Your task to perform on an android device: Go to display settings Image 0: 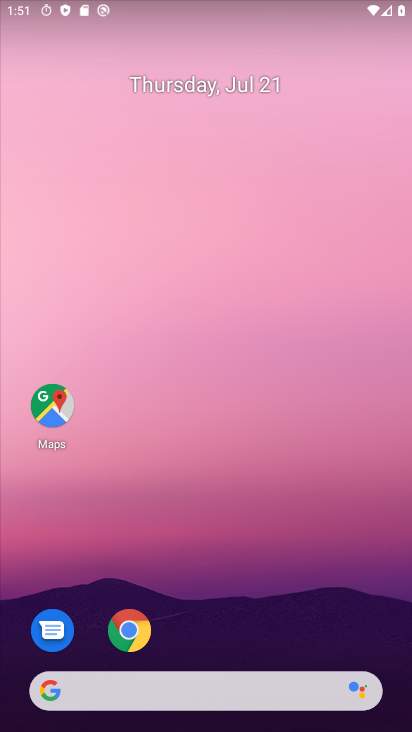
Step 0: drag from (219, 620) to (240, 107)
Your task to perform on an android device: Go to display settings Image 1: 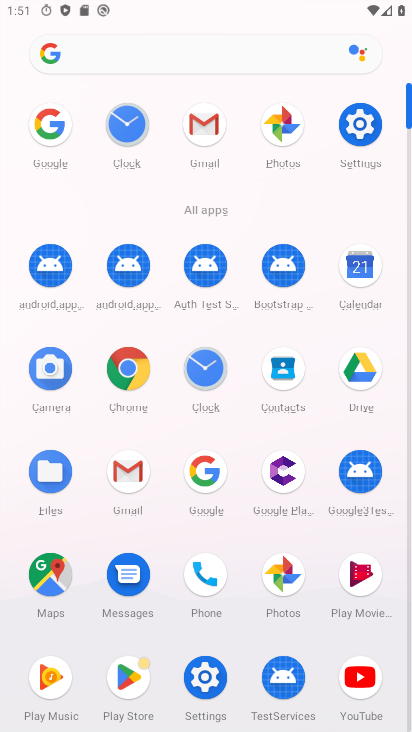
Step 1: click (354, 131)
Your task to perform on an android device: Go to display settings Image 2: 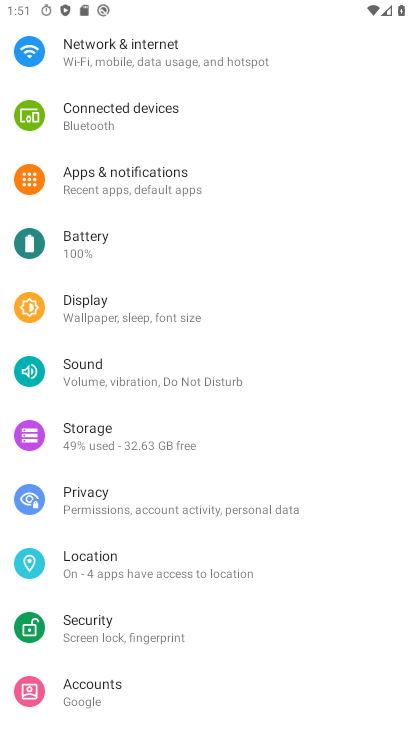
Step 2: click (113, 307)
Your task to perform on an android device: Go to display settings Image 3: 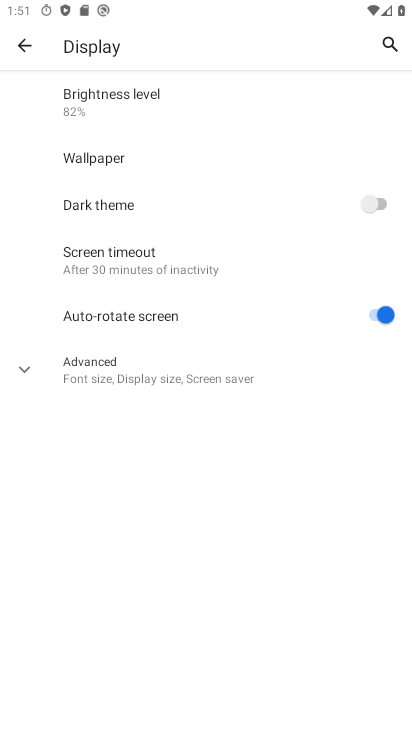
Step 3: task complete